Your task to perform on an android device: Open the phone app and click the voicemail tab. Image 0: 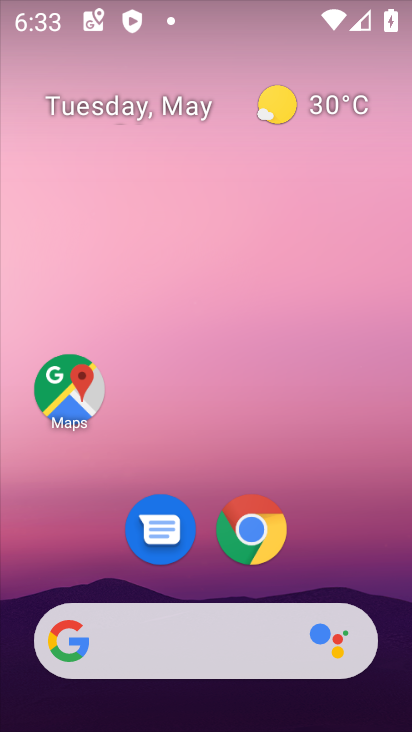
Step 0: drag from (386, 636) to (281, 129)
Your task to perform on an android device: Open the phone app and click the voicemail tab. Image 1: 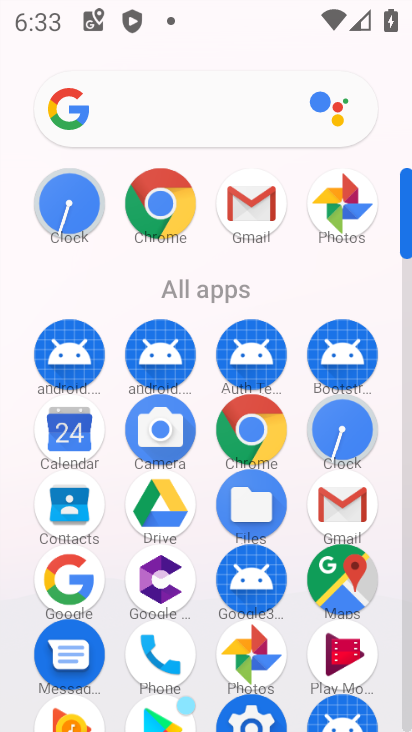
Step 1: click (161, 645)
Your task to perform on an android device: Open the phone app and click the voicemail tab. Image 2: 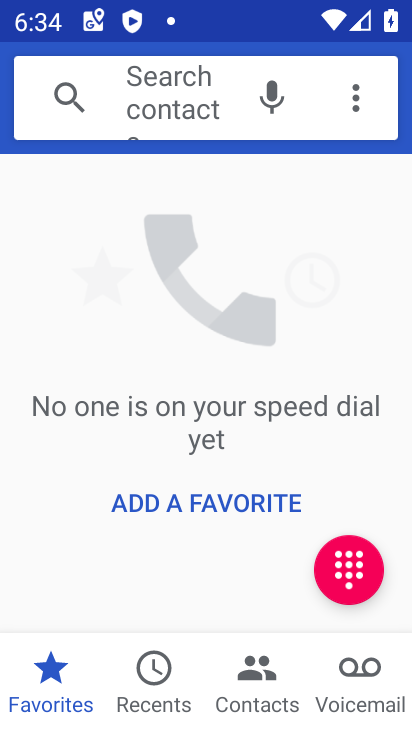
Step 2: click (360, 678)
Your task to perform on an android device: Open the phone app and click the voicemail tab. Image 3: 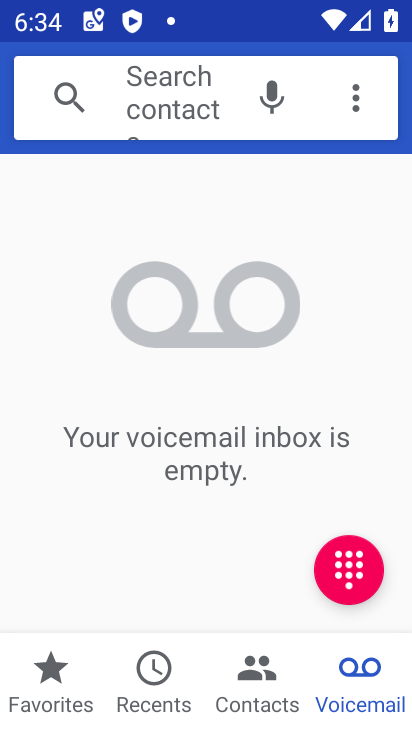
Step 3: task complete